Your task to perform on an android device: Check the weather Image 0: 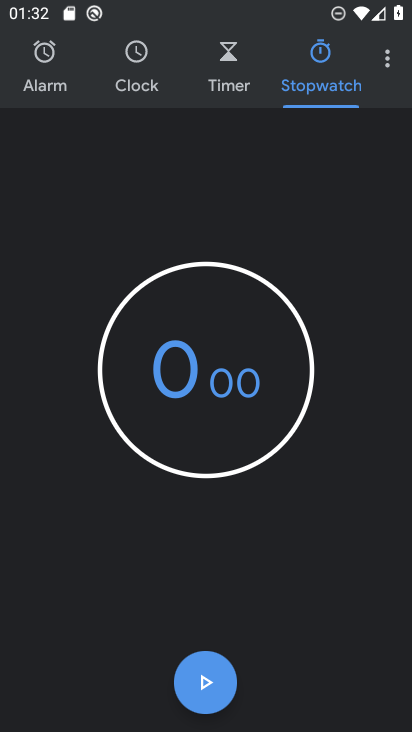
Step 0: press home button
Your task to perform on an android device: Check the weather Image 1: 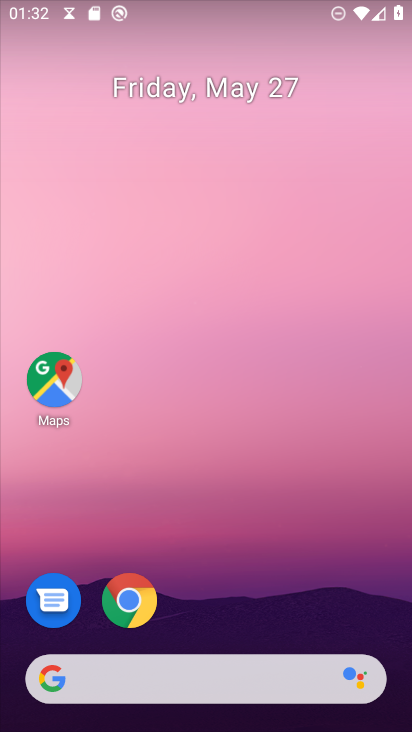
Step 1: click (173, 666)
Your task to perform on an android device: Check the weather Image 2: 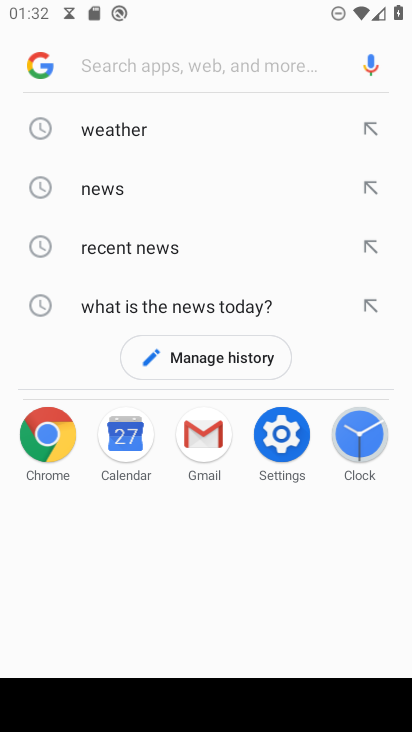
Step 2: click (169, 121)
Your task to perform on an android device: Check the weather Image 3: 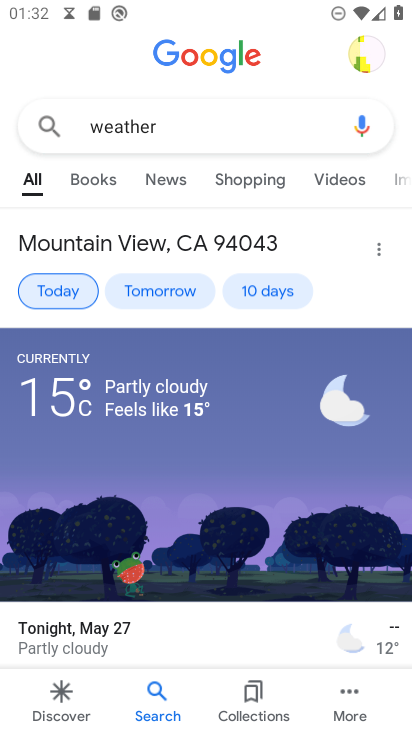
Step 3: task complete